Your task to perform on an android device: toggle javascript in the chrome app Image 0: 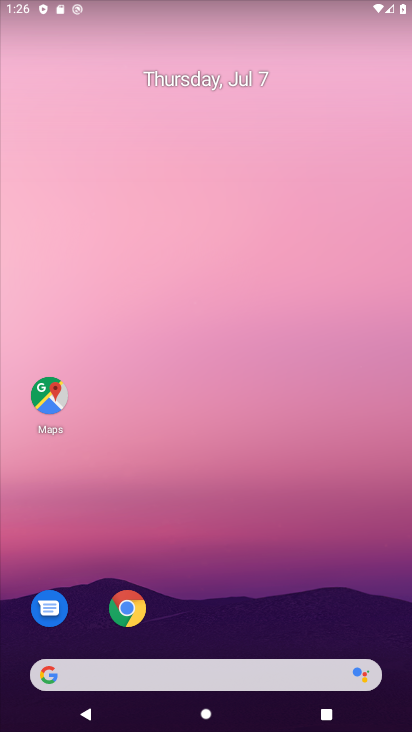
Step 0: click (142, 600)
Your task to perform on an android device: toggle javascript in the chrome app Image 1: 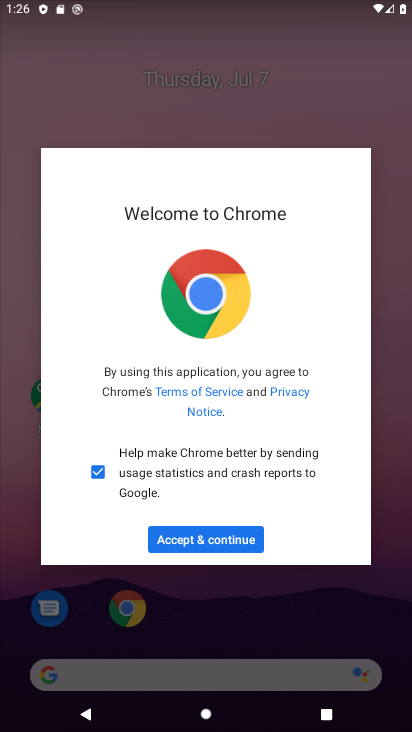
Step 1: click (242, 534)
Your task to perform on an android device: toggle javascript in the chrome app Image 2: 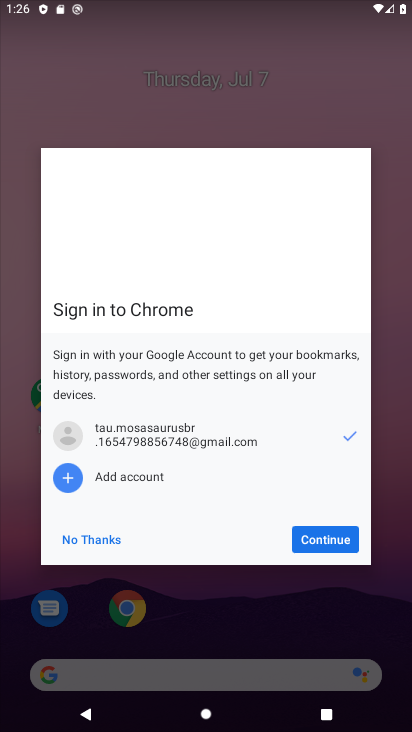
Step 2: click (333, 525)
Your task to perform on an android device: toggle javascript in the chrome app Image 3: 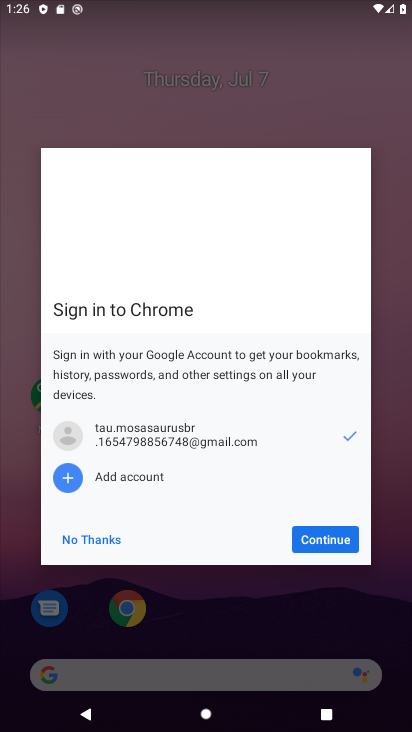
Step 3: click (325, 544)
Your task to perform on an android device: toggle javascript in the chrome app Image 4: 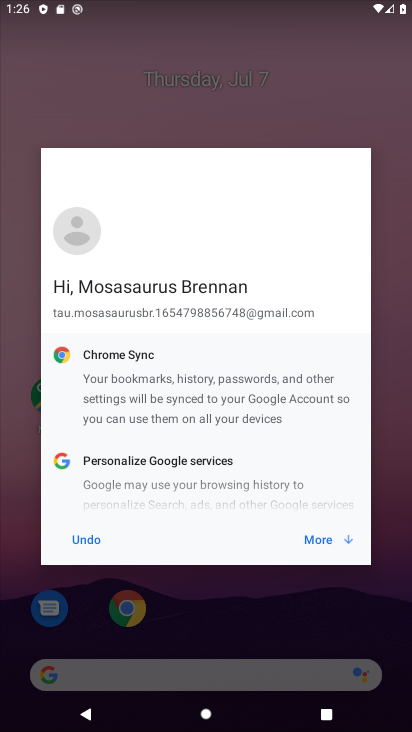
Step 4: click (325, 544)
Your task to perform on an android device: toggle javascript in the chrome app Image 5: 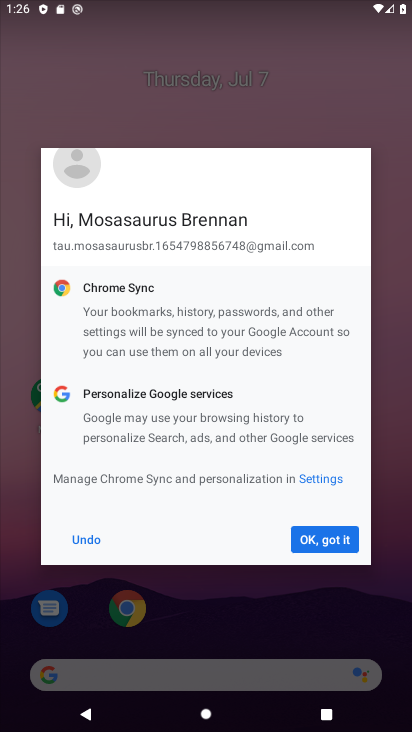
Step 5: click (325, 544)
Your task to perform on an android device: toggle javascript in the chrome app Image 6: 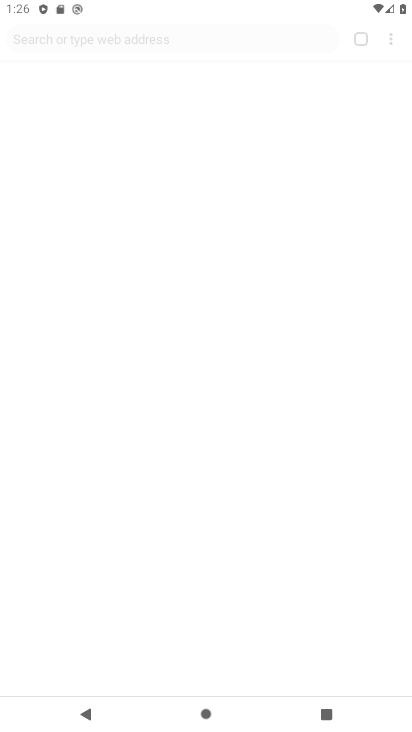
Step 6: click (325, 544)
Your task to perform on an android device: toggle javascript in the chrome app Image 7: 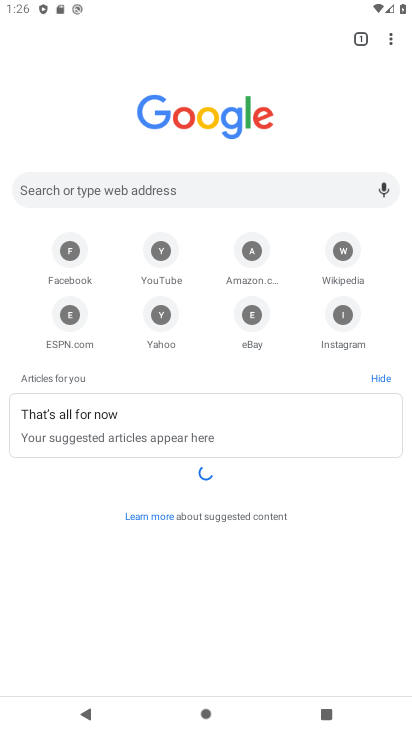
Step 7: drag from (395, 50) to (288, 322)
Your task to perform on an android device: toggle javascript in the chrome app Image 8: 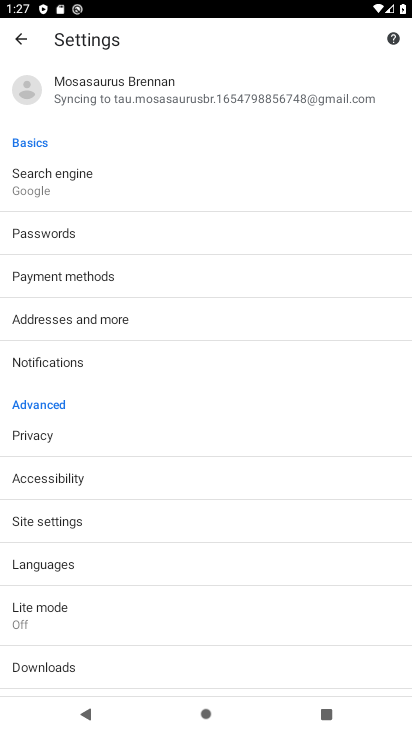
Step 8: click (111, 530)
Your task to perform on an android device: toggle javascript in the chrome app Image 9: 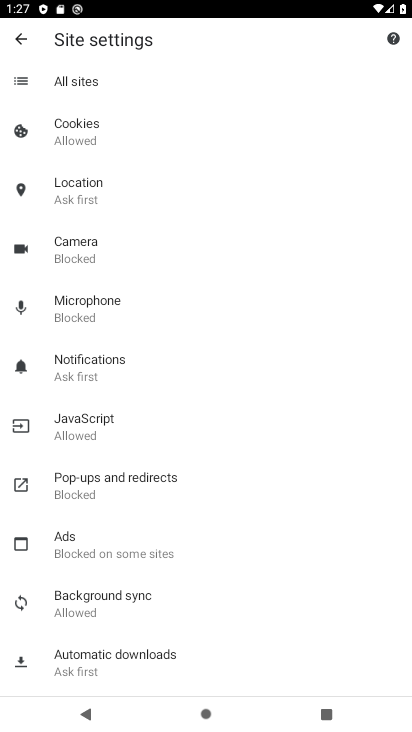
Step 9: click (114, 432)
Your task to perform on an android device: toggle javascript in the chrome app Image 10: 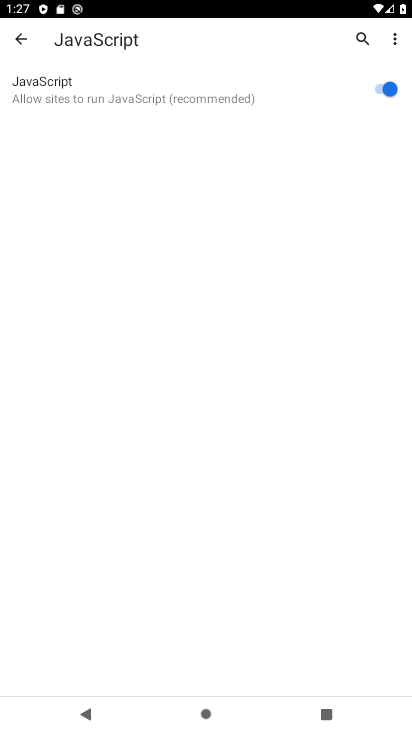
Step 10: click (385, 83)
Your task to perform on an android device: toggle javascript in the chrome app Image 11: 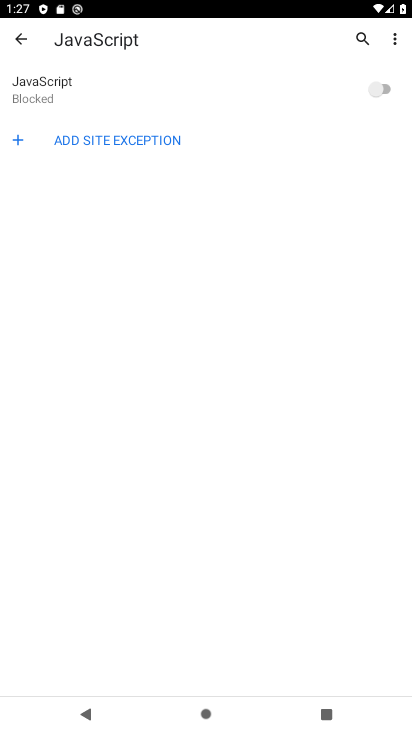
Step 11: task complete